Your task to perform on an android device: check battery use Image 0: 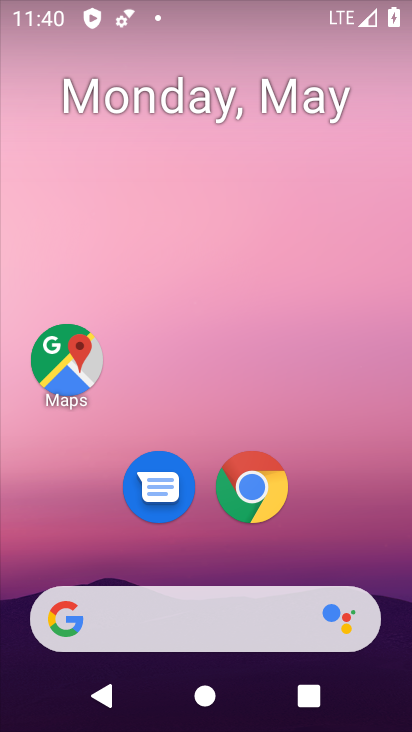
Step 0: drag from (39, 566) to (205, 196)
Your task to perform on an android device: check battery use Image 1: 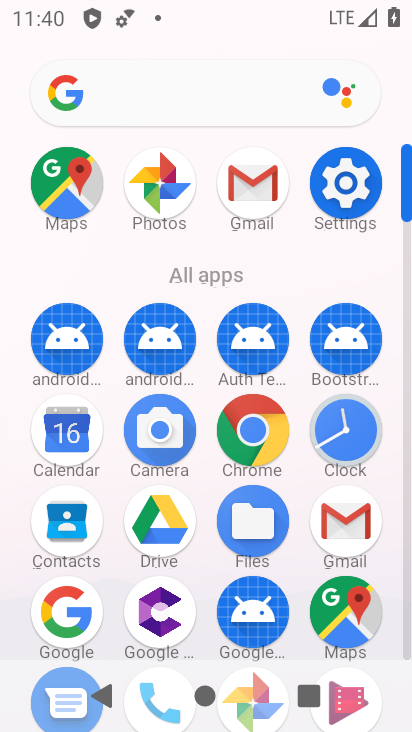
Step 1: click (337, 178)
Your task to perform on an android device: check battery use Image 2: 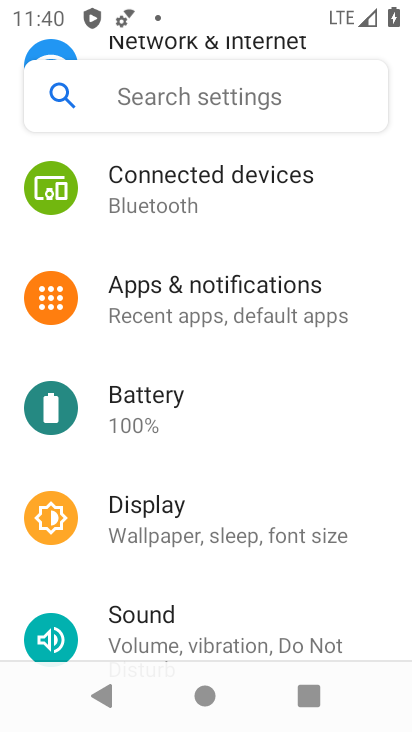
Step 2: click (137, 433)
Your task to perform on an android device: check battery use Image 3: 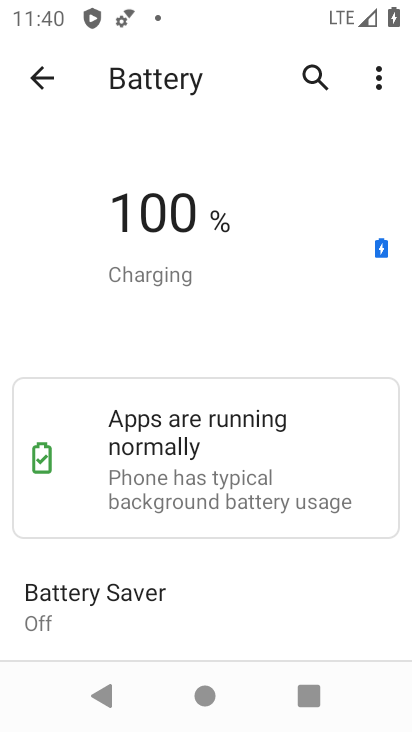
Step 3: click (168, 228)
Your task to perform on an android device: check battery use Image 4: 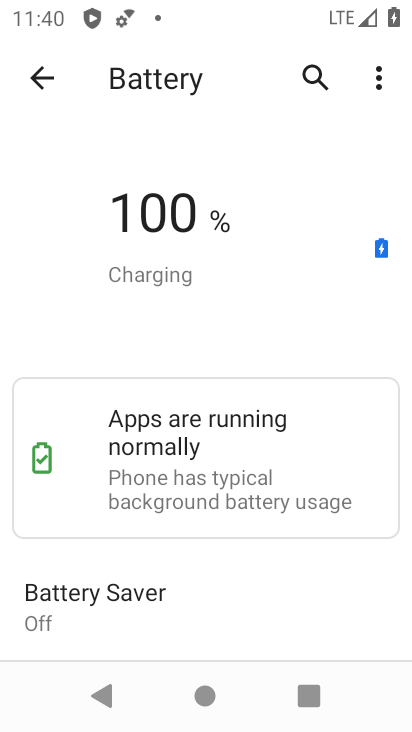
Step 4: drag from (12, 503) to (240, 223)
Your task to perform on an android device: check battery use Image 5: 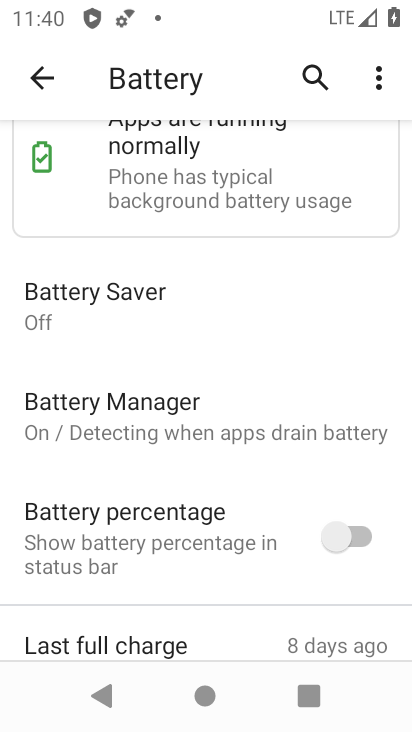
Step 5: drag from (12, 587) to (177, 320)
Your task to perform on an android device: check battery use Image 6: 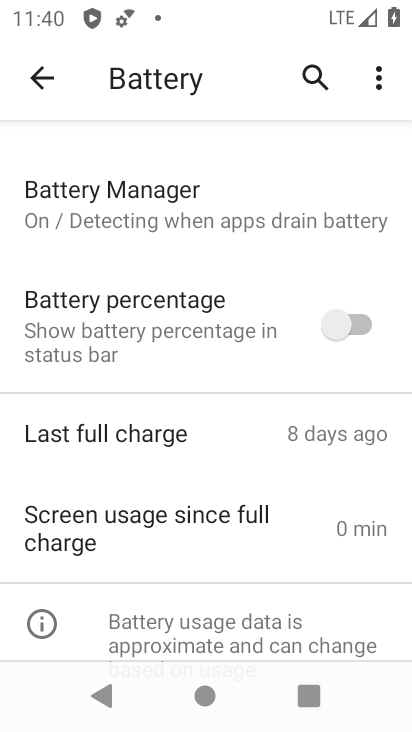
Step 6: click (112, 531)
Your task to perform on an android device: check battery use Image 7: 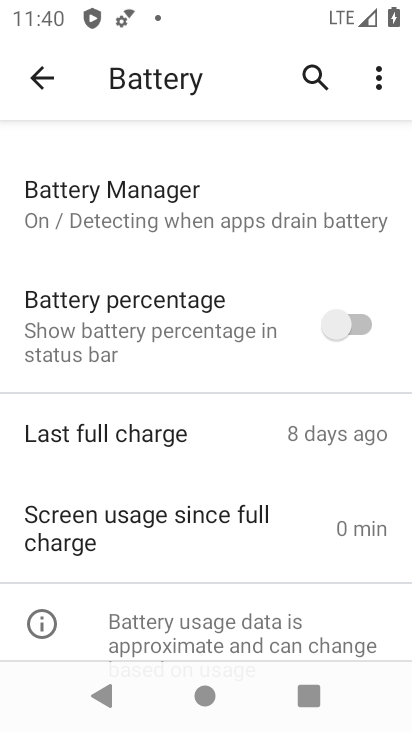
Step 7: click (187, 527)
Your task to perform on an android device: check battery use Image 8: 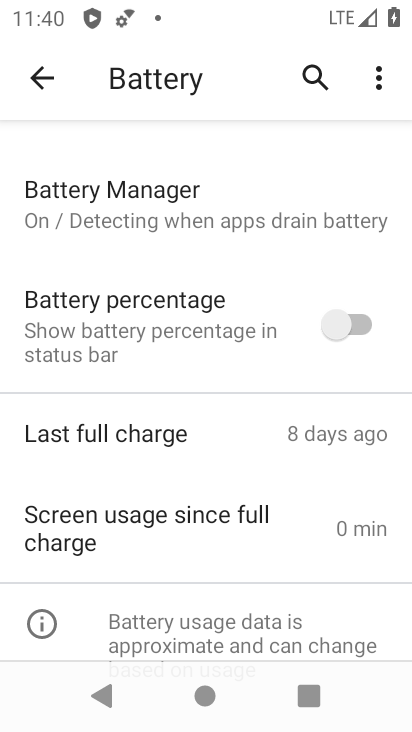
Step 8: click (187, 526)
Your task to perform on an android device: check battery use Image 9: 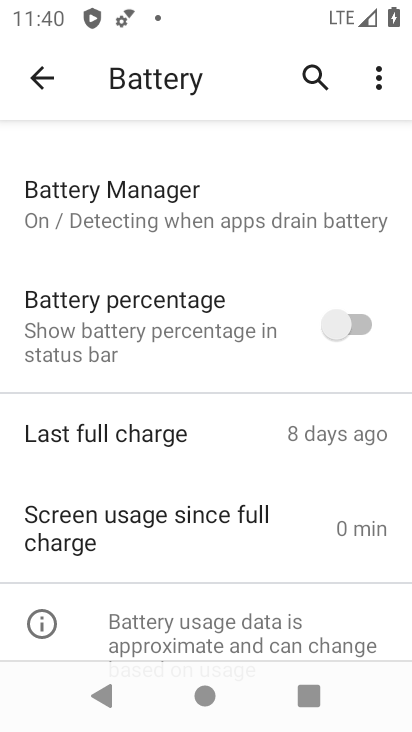
Step 9: task complete